Your task to perform on an android device: Open accessibility settings Image 0: 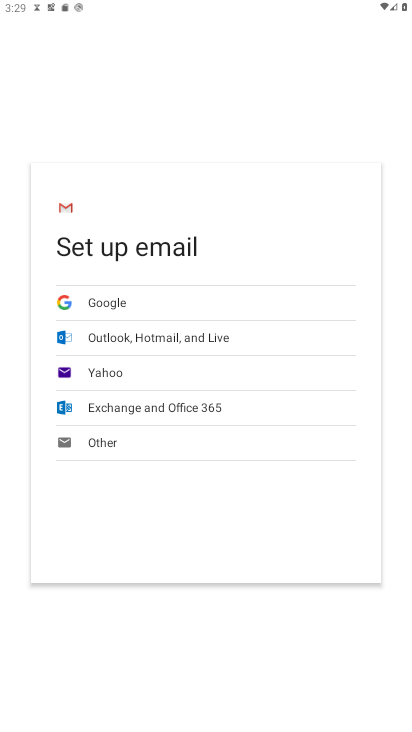
Step 0: drag from (230, 699) to (171, 113)
Your task to perform on an android device: Open accessibility settings Image 1: 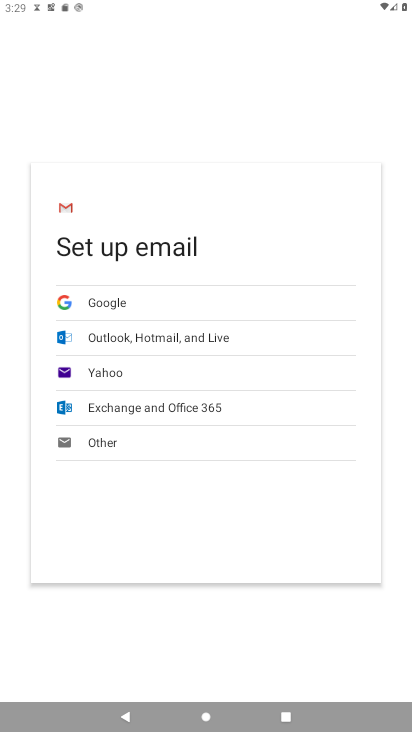
Step 1: press home button
Your task to perform on an android device: Open accessibility settings Image 2: 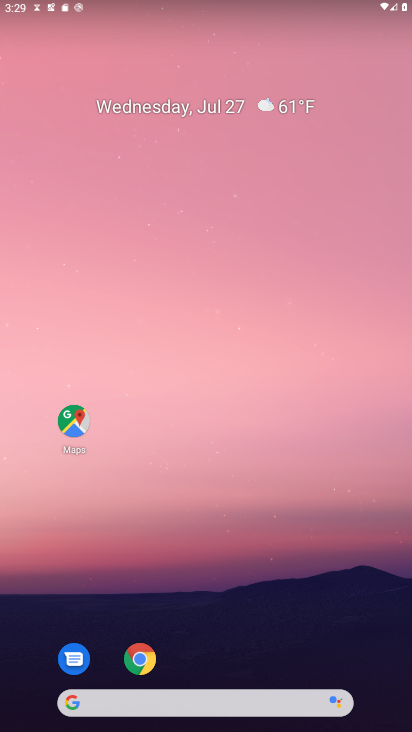
Step 2: drag from (214, 696) to (209, 194)
Your task to perform on an android device: Open accessibility settings Image 3: 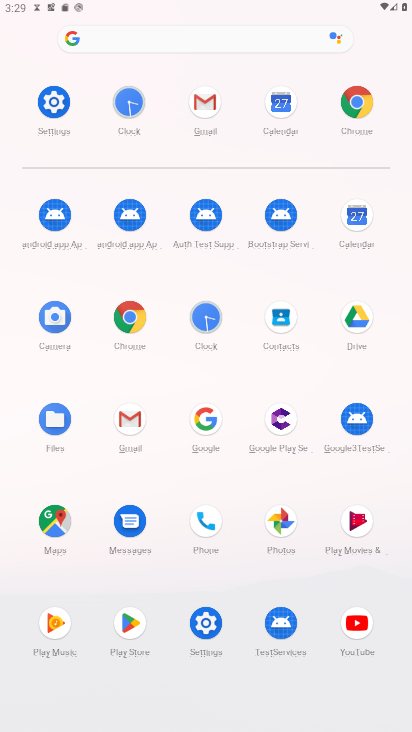
Step 3: click (204, 633)
Your task to perform on an android device: Open accessibility settings Image 4: 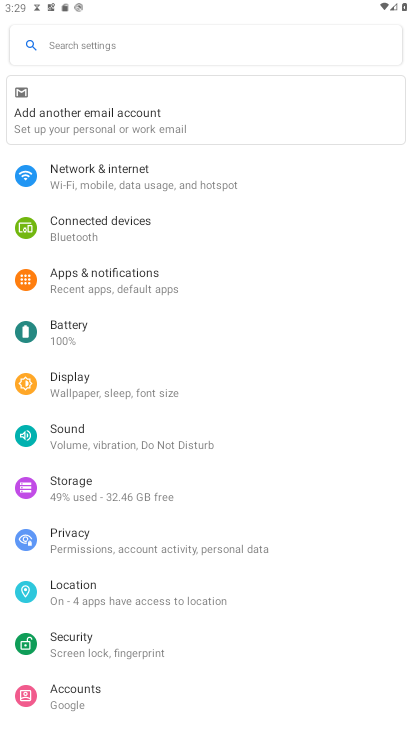
Step 4: drag from (165, 579) to (19, 12)
Your task to perform on an android device: Open accessibility settings Image 5: 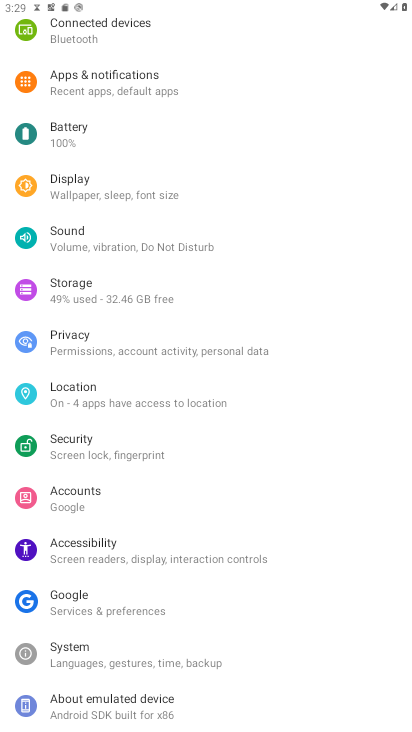
Step 5: click (111, 545)
Your task to perform on an android device: Open accessibility settings Image 6: 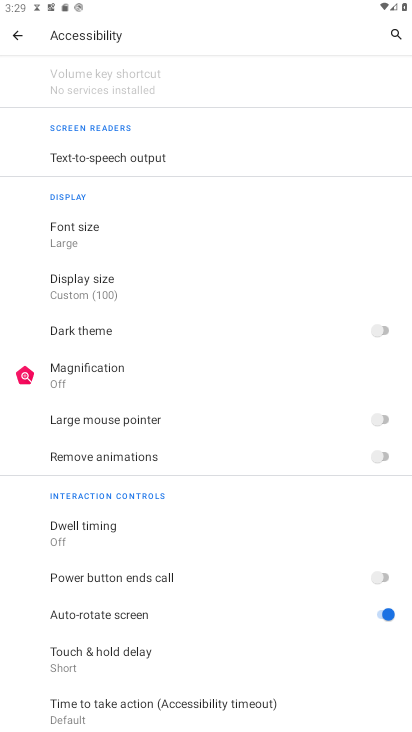
Step 6: task complete